Your task to perform on an android device: Open notification settings Image 0: 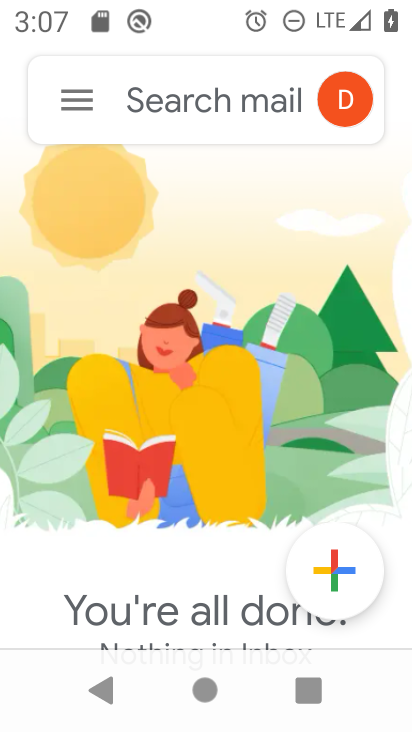
Step 0: press home button
Your task to perform on an android device: Open notification settings Image 1: 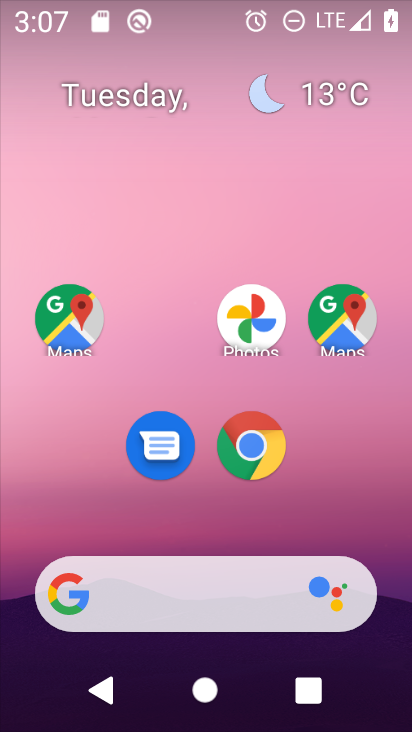
Step 1: drag from (382, 547) to (395, 290)
Your task to perform on an android device: Open notification settings Image 2: 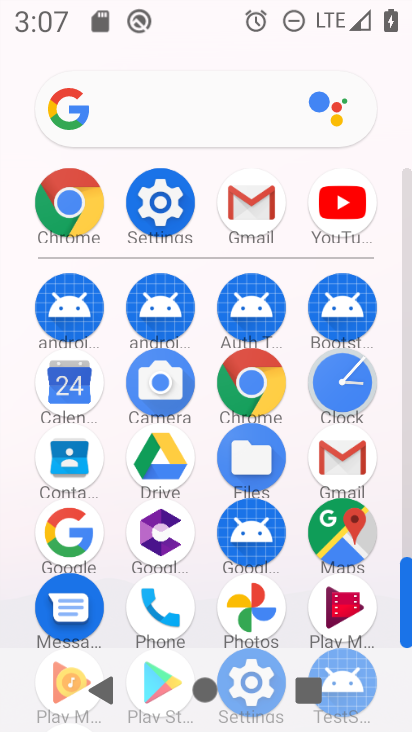
Step 2: drag from (385, 585) to (388, 327)
Your task to perform on an android device: Open notification settings Image 3: 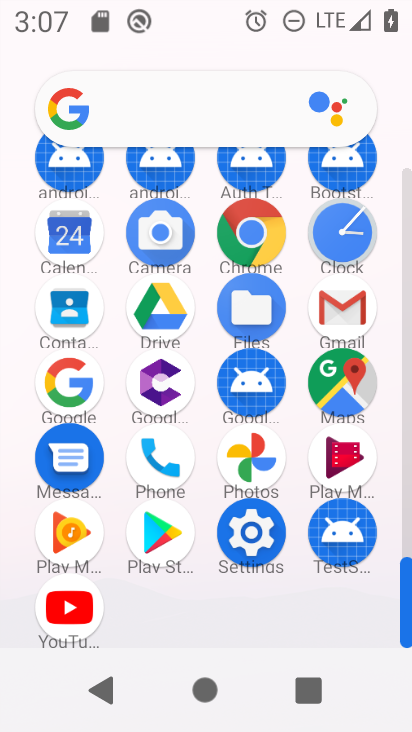
Step 3: click (254, 553)
Your task to perform on an android device: Open notification settings Image 4: 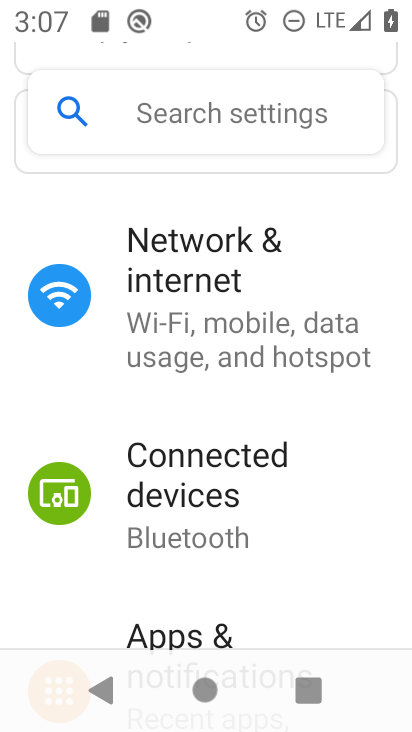
Step 4: drag from (348, 586) to (357, 431)
Your task to perform on an android device: Open notification settings Image 5: 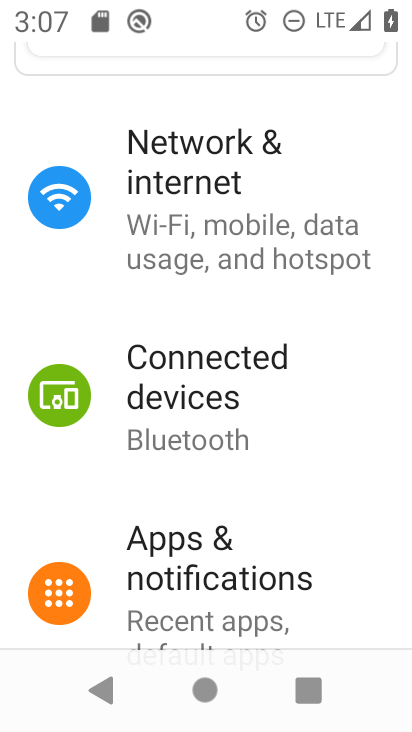
Step 5: drag from (369, 612) to (377, 473)
Your task to perform on an android device: Open notification settings Image 6: 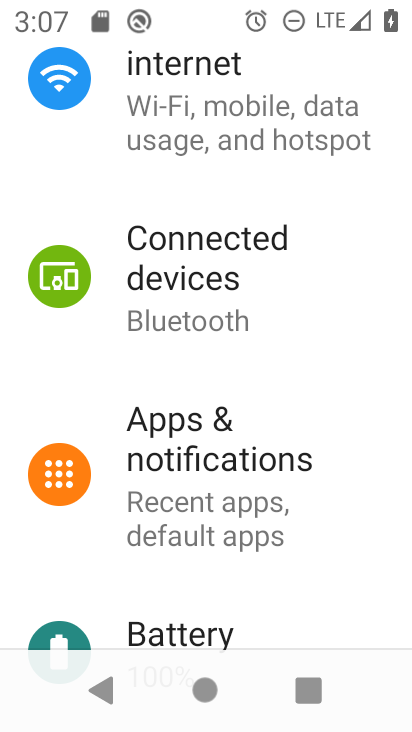
Step 6: drag from (357, 596) to (368, 467)
Your task to perform on an android device: Open notification settings Image 7: 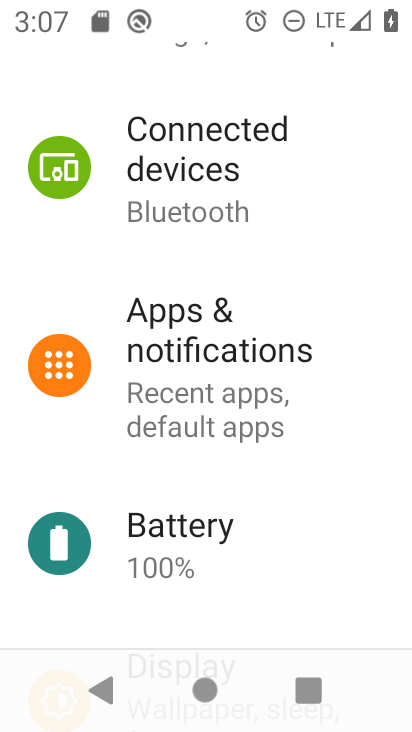
Step 7: drag from (358, 588) to (360, 530)
Your task to perform on an android device: Open notification settings Image 8: 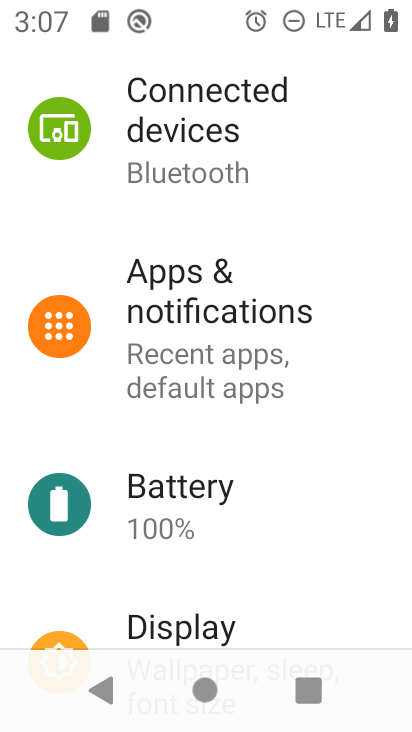
Step 8: click (257, 365)
Your task to perform on an android device: Open notification settings Image 9: 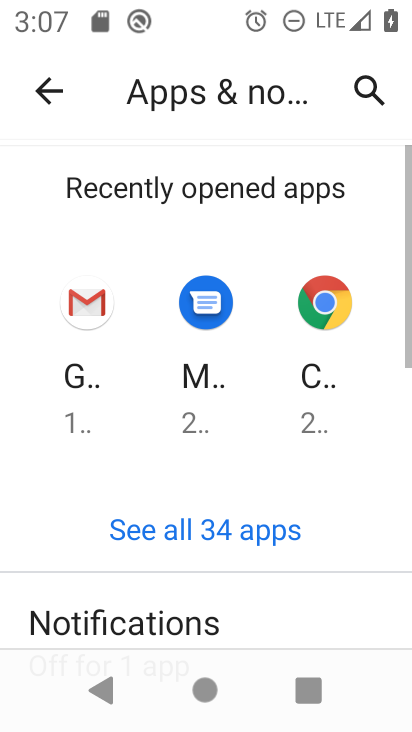
Step 9: drag from (302, 595) to (305, 503)
Your task to perform on an android device: Open notification settings Image 10: 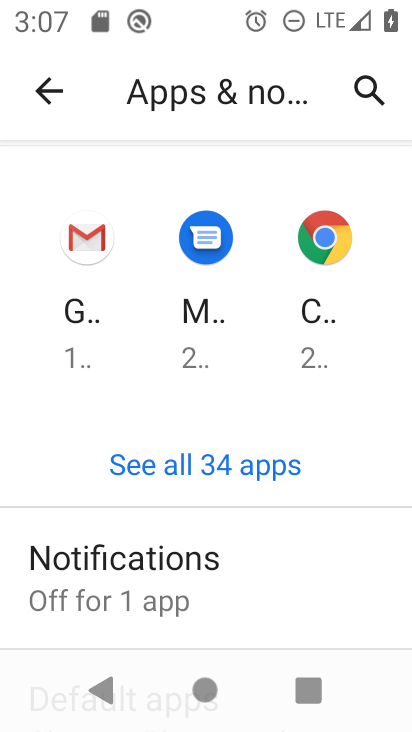
Step 10: drag from (294, 603) to (294, 522)
Your task to perform on an android device: Open notification settings Image 11: 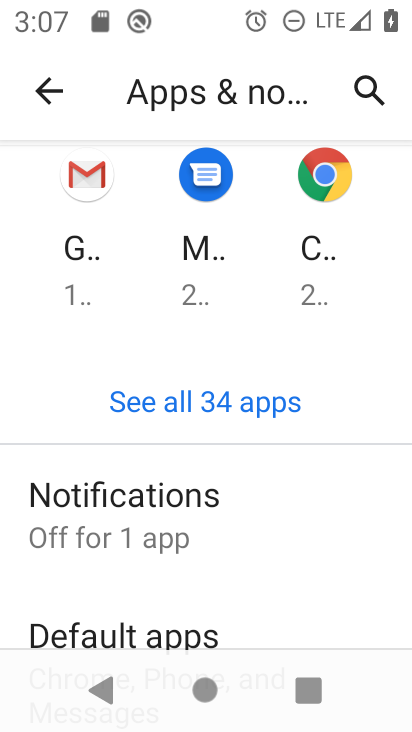
Step 11: click (180, 516)
Your task to perform on an android device: Open notification settings Image 12: 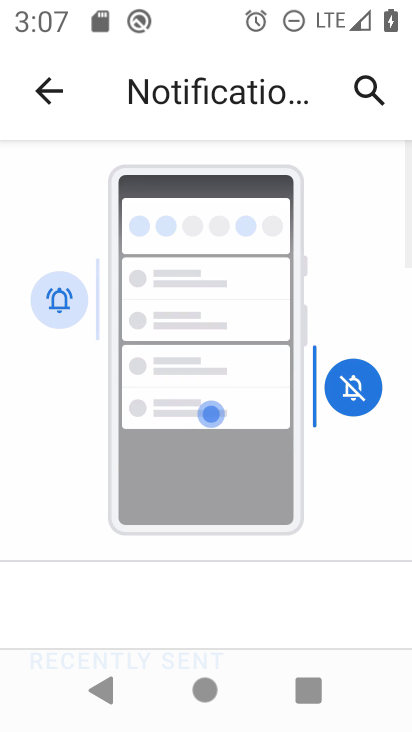
Step 12: task complete